Your task to perform on an android device: add a contact in the contacts app Image 0: 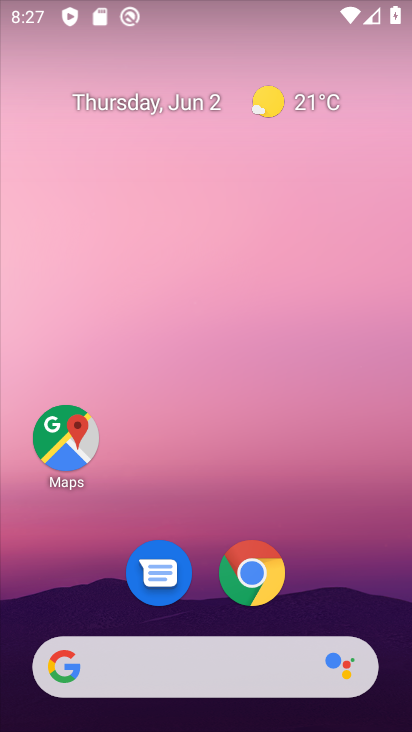
Step 0: drag from (324, 595) to (319, 9)
Your task to perform on an android device: add a contact in the contacts app Image 1: 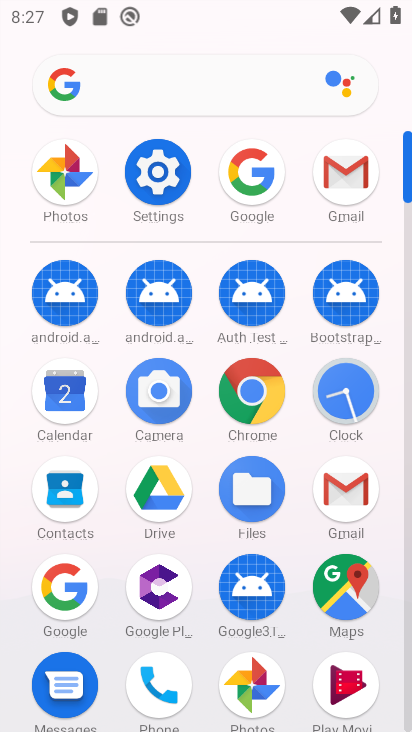
Step 1: drag from (67, 399) to (71, 175)
Your task to perform on an android device: add a contact in the contacts app Image 2: 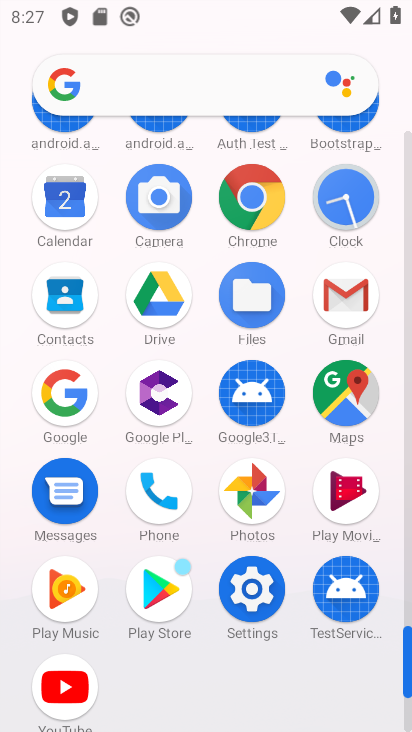
Step 2: click (75, 292)
Your task to perform on an android device: add a contact in the contacts app Image 3: 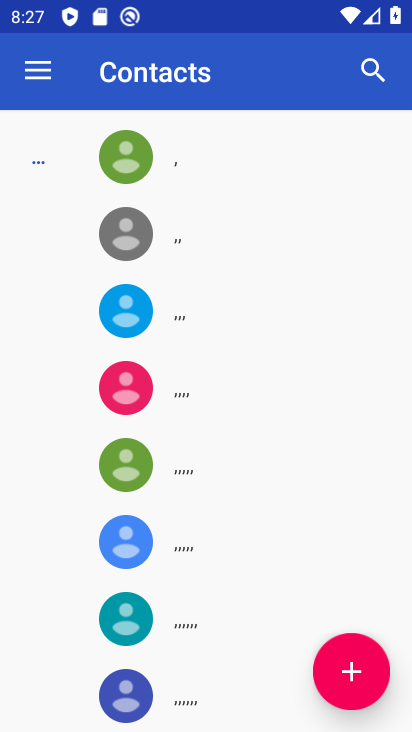
Step 3: click (354, 674)
Your task to perform on an android device: add a contact in the contacts app Image 4: 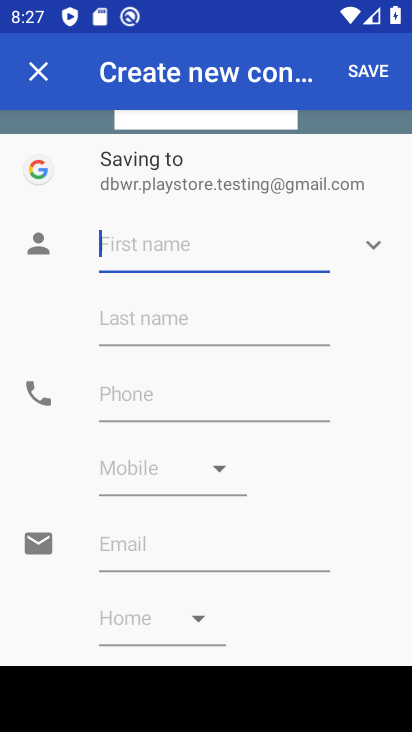
Step 4: type "kjfjhm"
Your task to perform on an android device: add a contact in the contacts app Image 5: 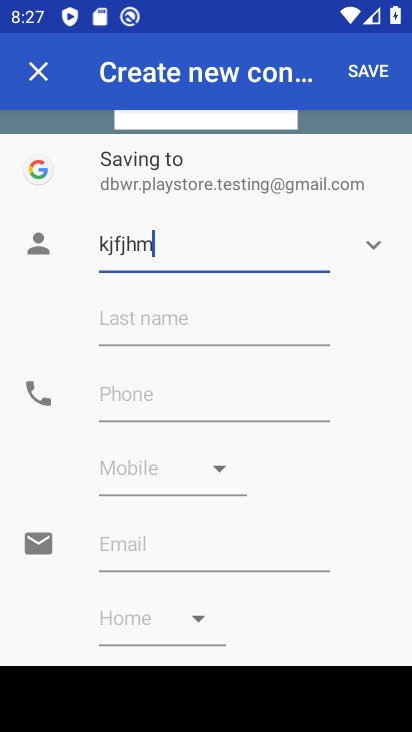
Step 5: click (370, 67)
Your task to perform on an android device: add a contact in the contacts app Image 6: 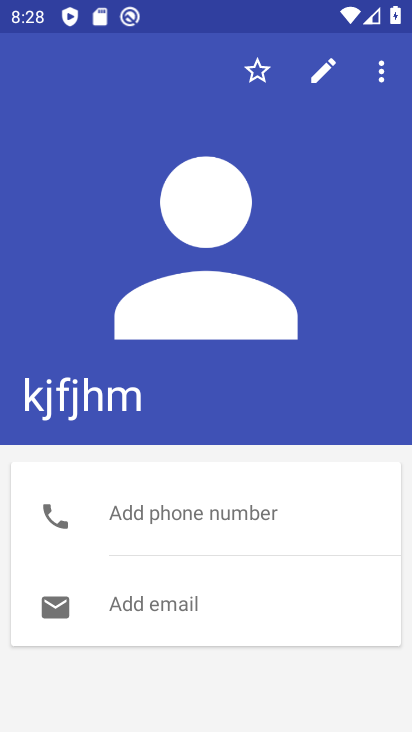
Step 6: task complete